Your task to perform on an android device: See recent photos Image 0: 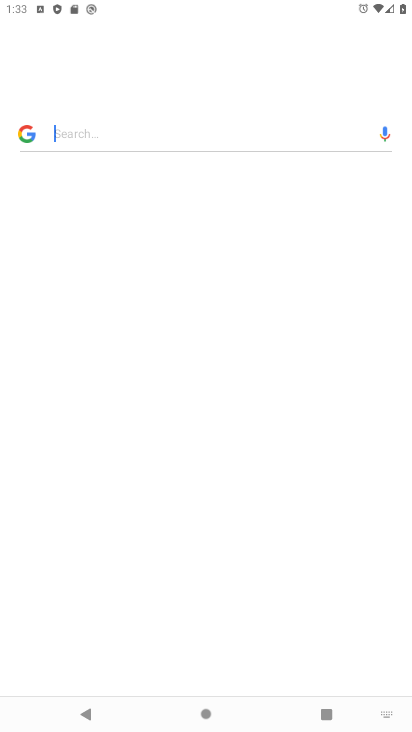
Step 0: drag from (258, 590) to (291, 255)
Your task to perform on an android device: See recent photos Image 1: 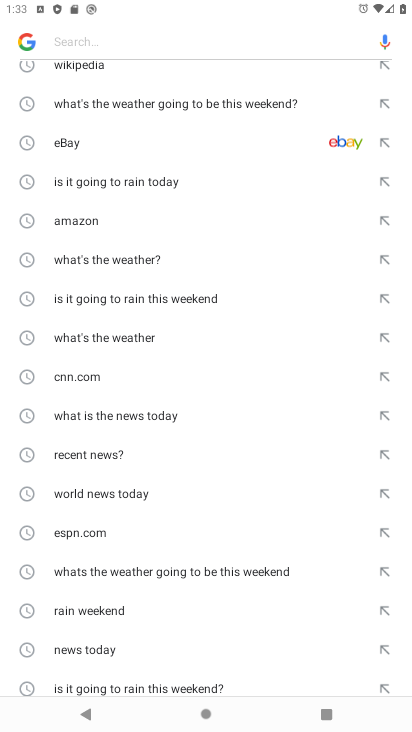
Step 1: press back button
Your task to perform on an android device: See recent photos Image 2: 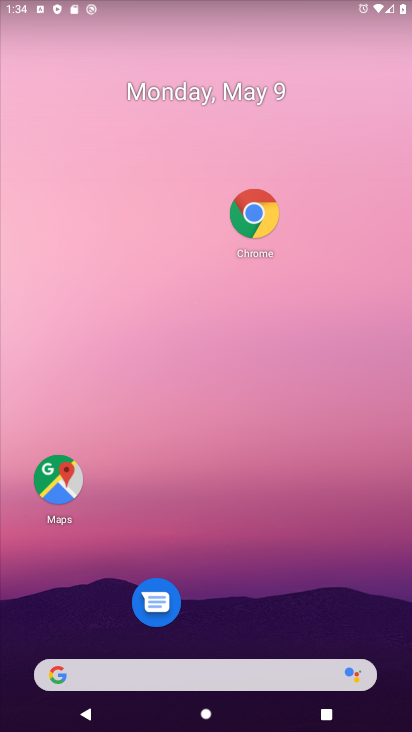
Step 2: press home button
Your task to perform on an android device: See recent photos Image 3: 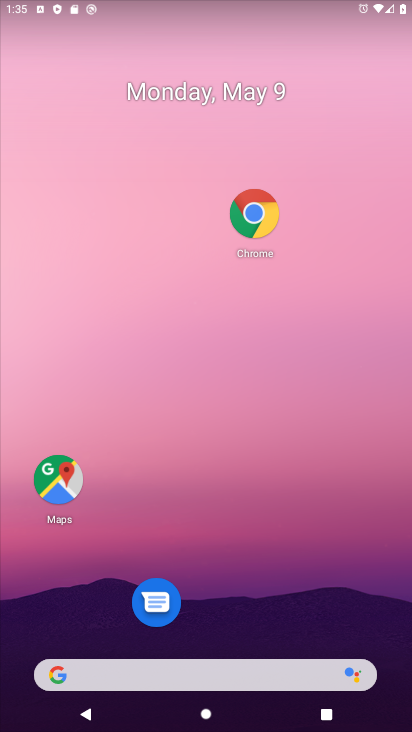
Step 3: drag from (266, 624) to (275, 94)
Your task to perform on an android device: See recent photos Image 4: 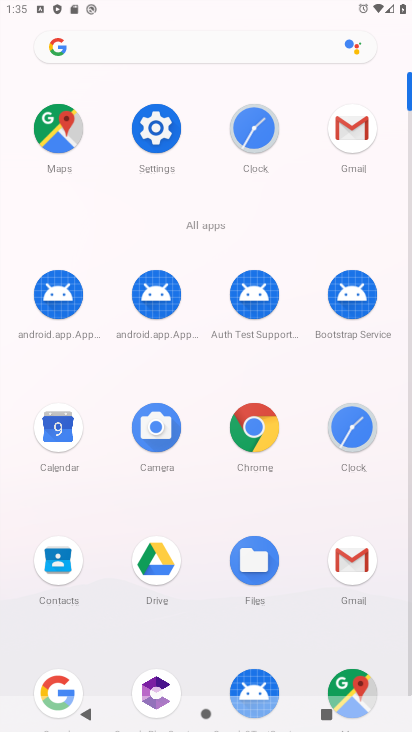
Step 4: click (410, 656)
Your task to perform on an android device: See recent photos Image 5: 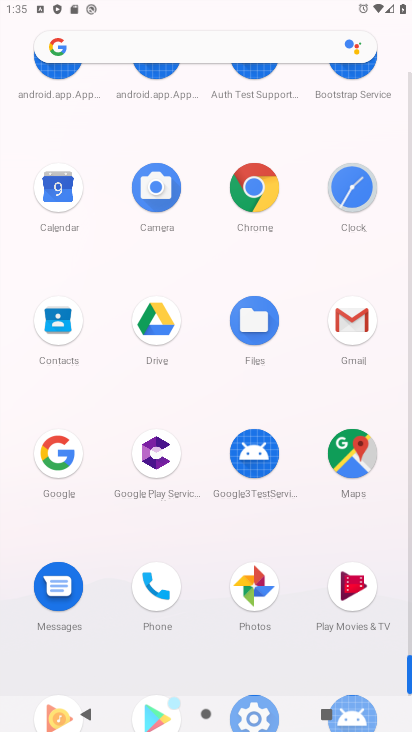
Step 5: click (241, 597)
Your task to perform on an android device: See recent photos Image 6: 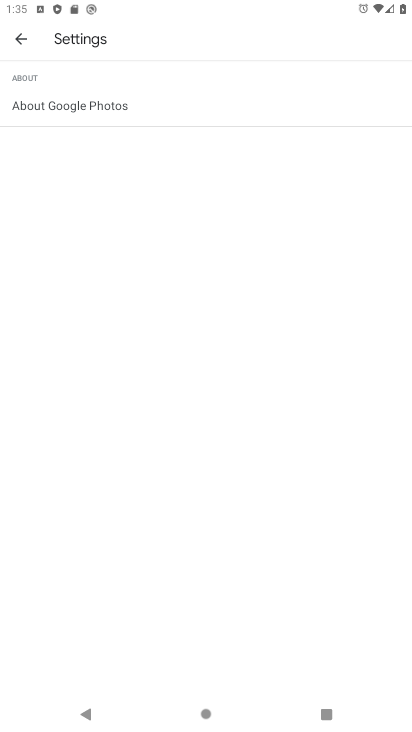
Step 6: click (13, 42)
Your task to perform on an android device: See recent photos Image 7: 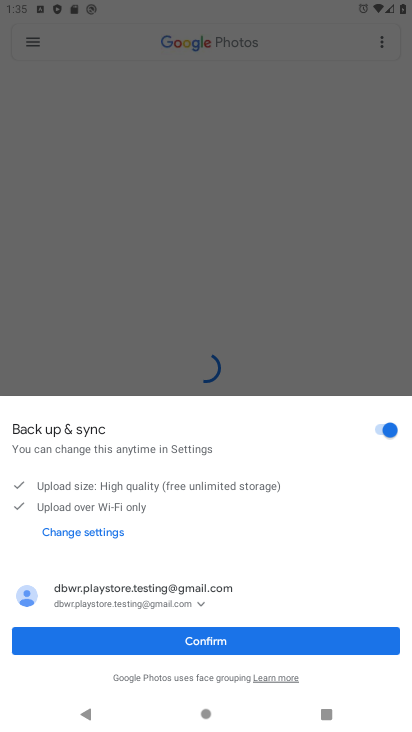
Step 7: click (283, 632)
Your task to perform on an android device: See recent photos Image 8: 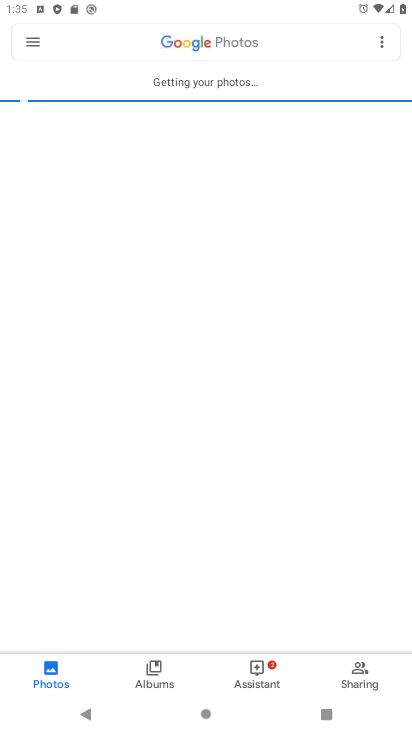
Step 8: task complete